Your task to perform on an android device: Open accessibility settings Image 0: 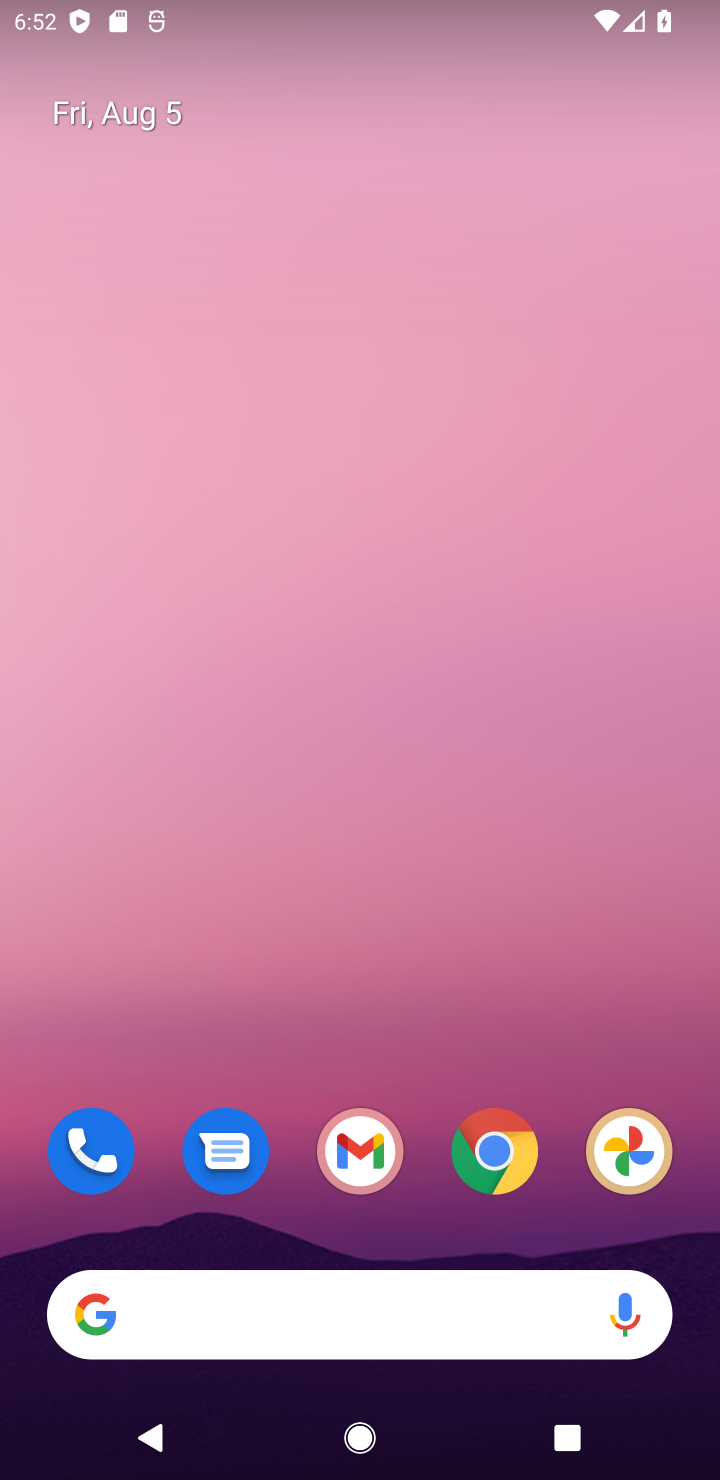
Step 0: drag from (570, 1110) to (556, 339)
Your task to perform on an android device: Open accessibility settings Image 1: 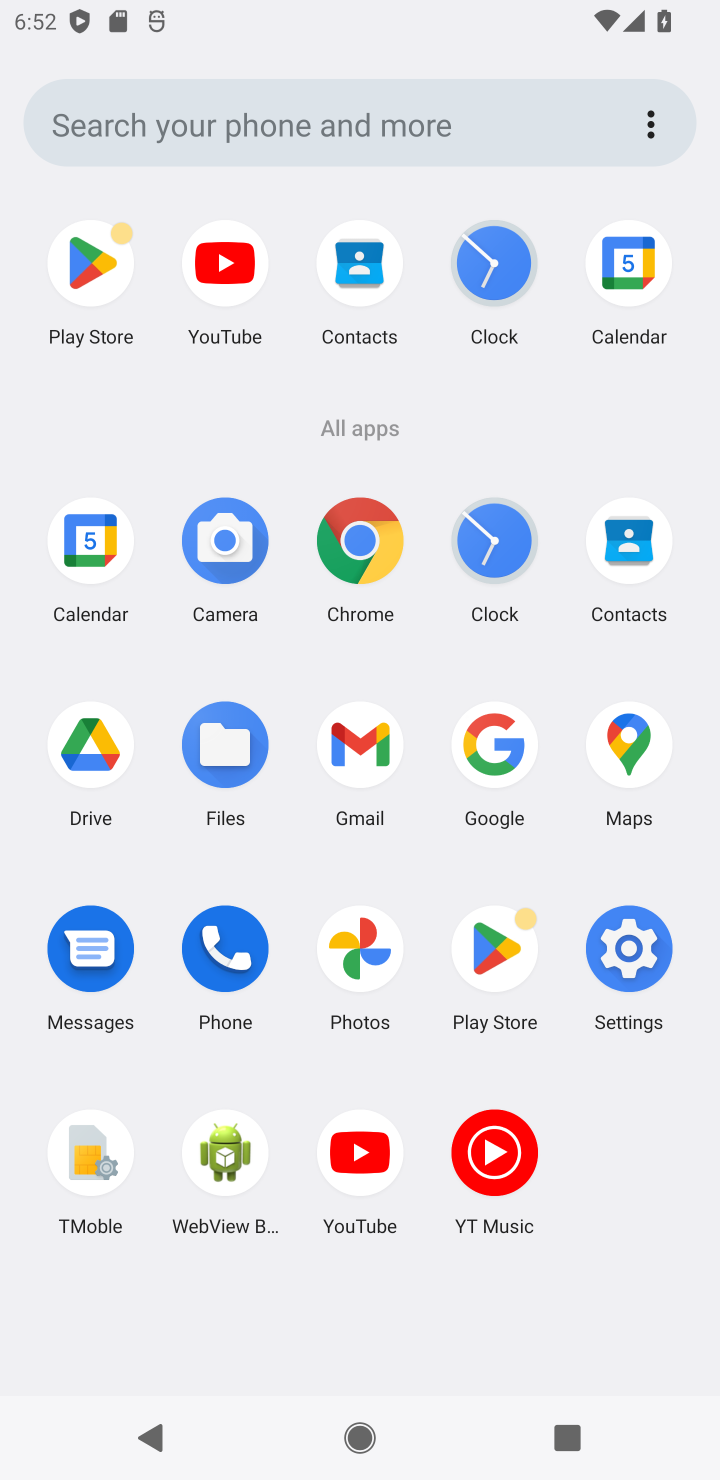
Step 1: click (633, 960)
Your task to perform on an android device: Open accessibility settings Image 2: 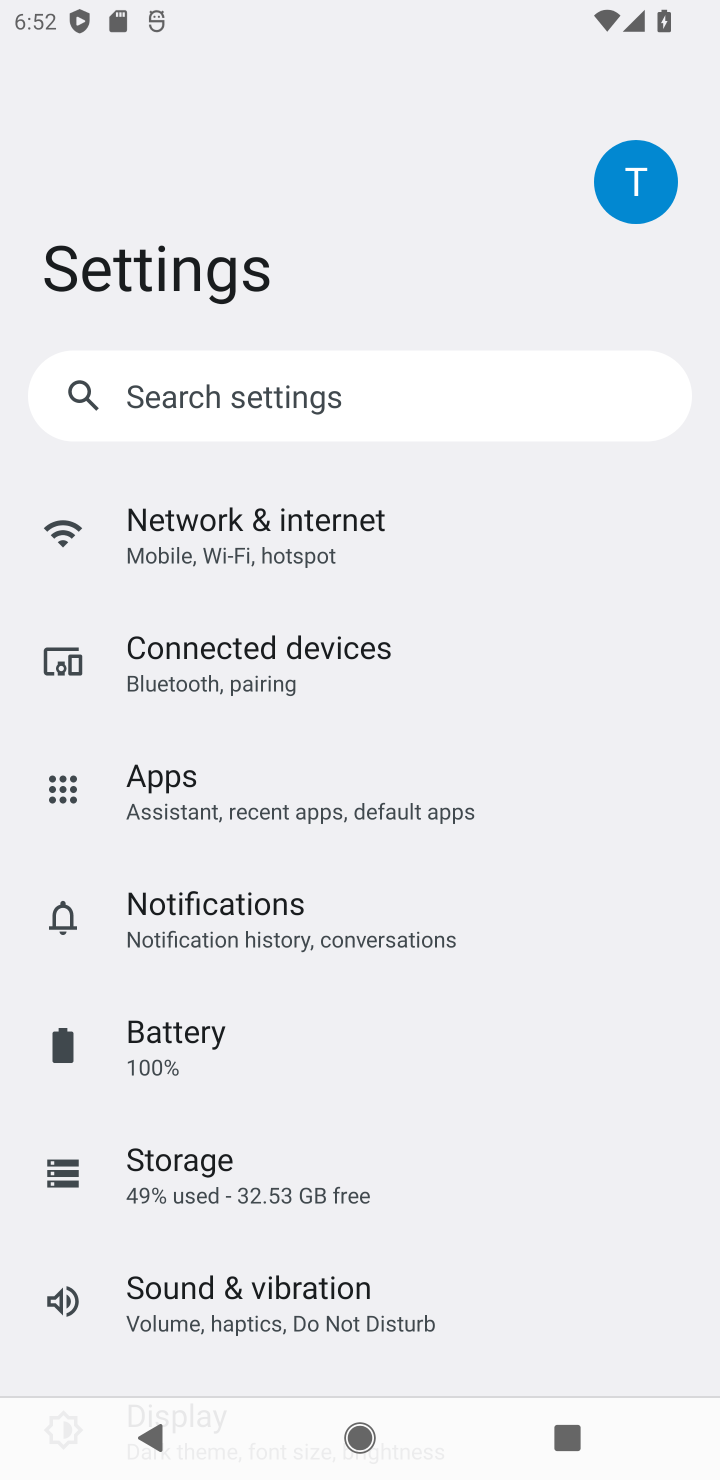
Step 2: drag from (504, 1193) to (424, 638)
Your task to perform on an android device: Open accessibility settings Image 3: 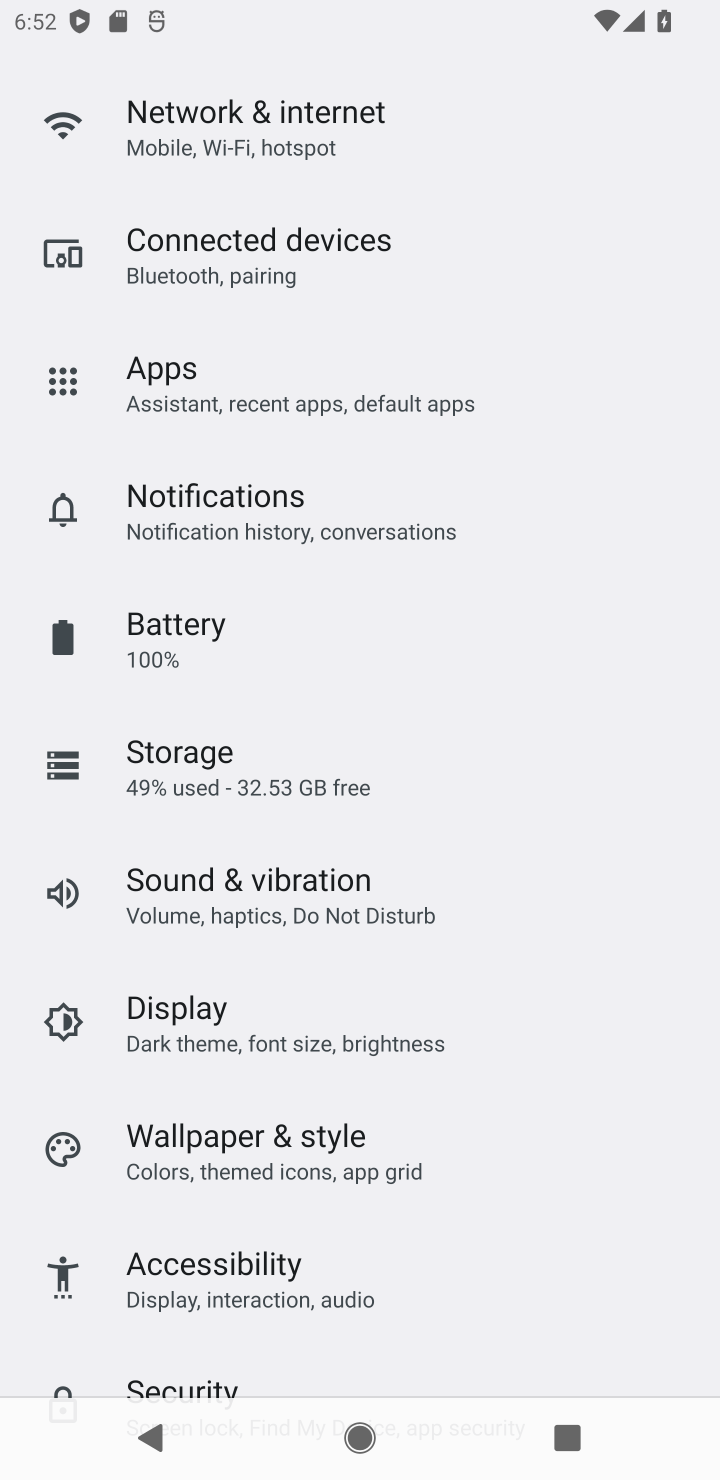
Step 3: click (248, 1274)
Your task to perform on an android device: Open accessibility settings Image 4: 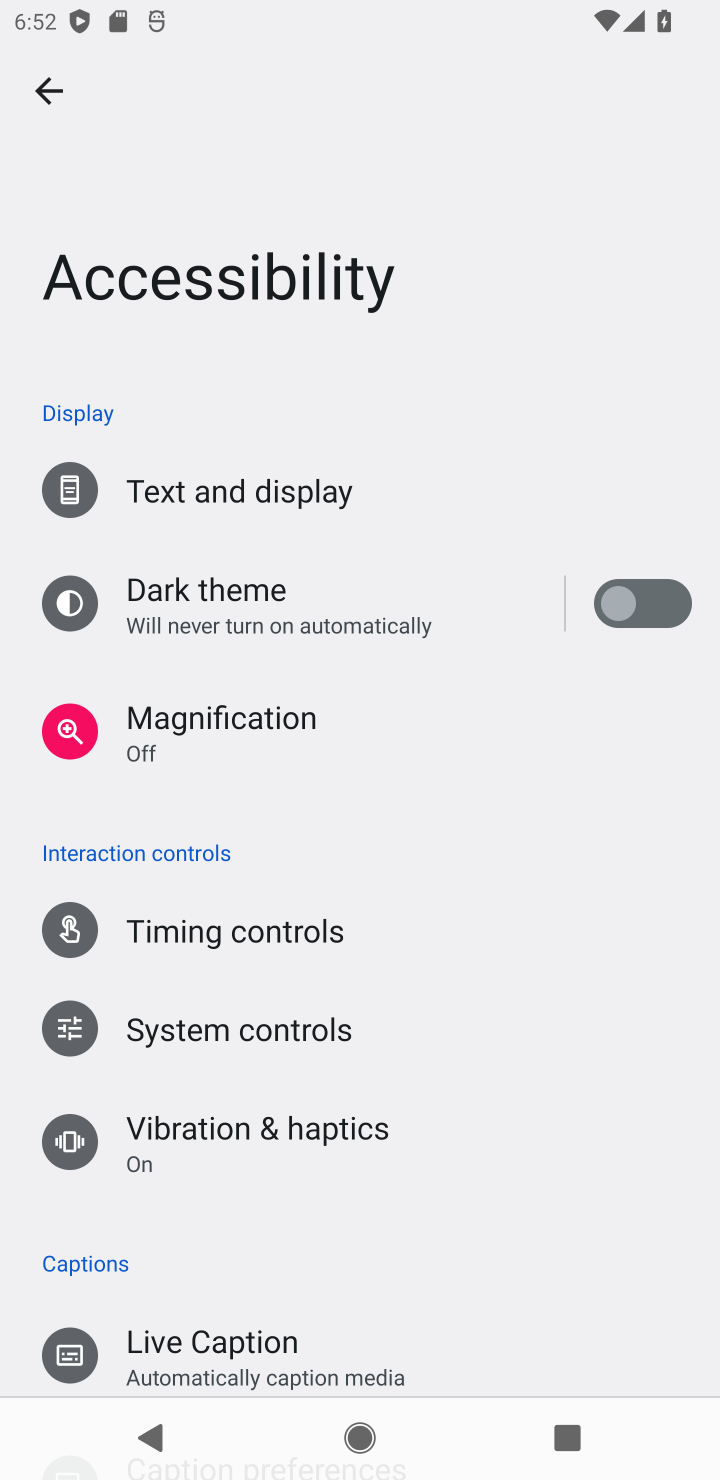
Step 4: task complete